Your task to perform on an android device: Open Chrome and go to settings Image 0: 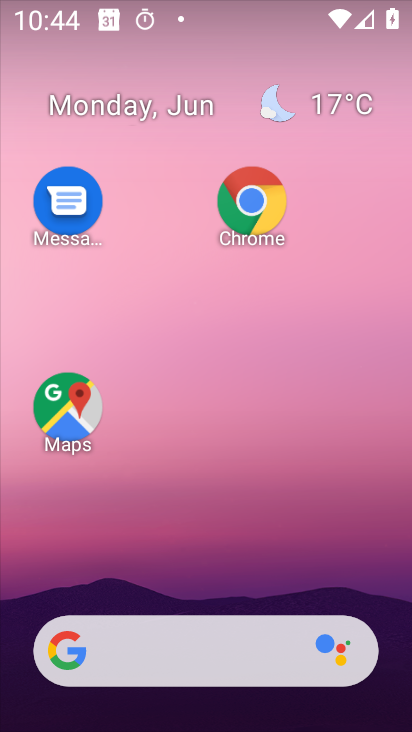
Step 0: drag from (261, 609) to (140, 12)
Your task to perform on an android device: Open Chrome and go to settings Image 1: 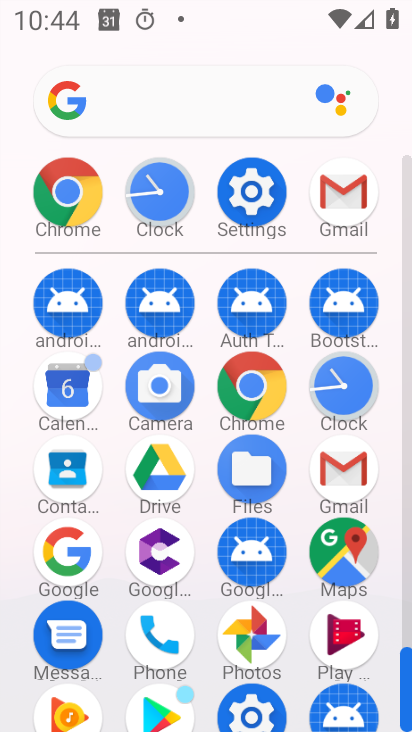
Step 1: click (231, 400)
Your task to perform on an android device: Open Chrome and go to settings Image 2: 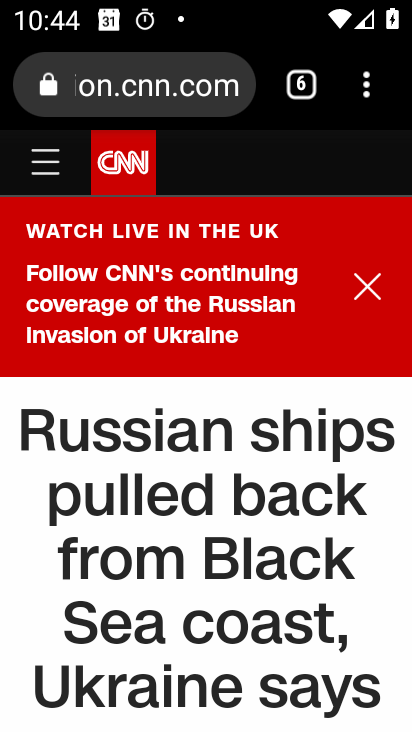
Step 2: click (374, 88)
Your task to perform on an android device: Open Chrome and go to settings Image 3: 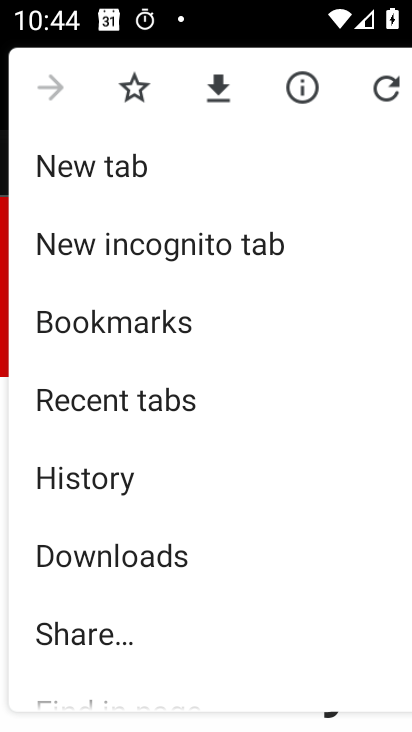
Step 3: drag from (193, 515) to (200, 117)
Your task to perform on an android device: Open Chrome and go to settings Image 4: 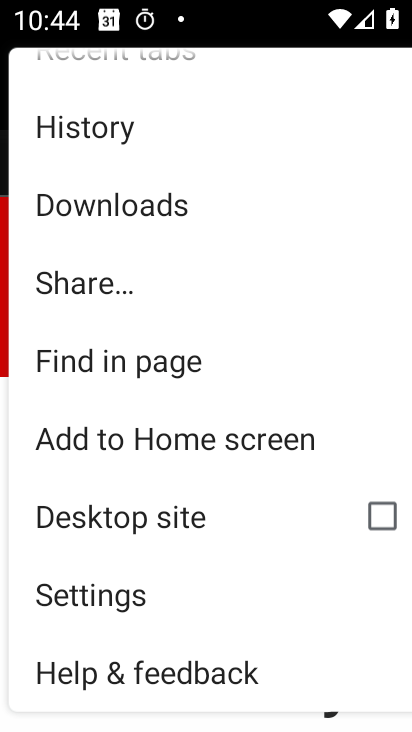
Step 4: click (142, 597)
Your task to perform on an android device: Open Chrome and go to settings Image 5: 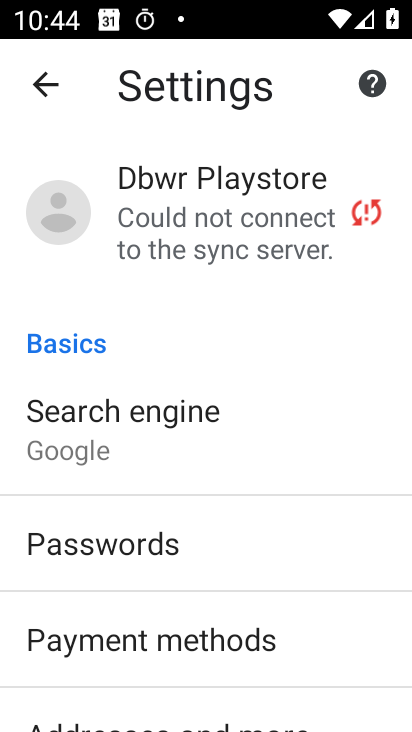
Step 5: task complete